Your task to perform on an android device: turn off wifi Image 0: 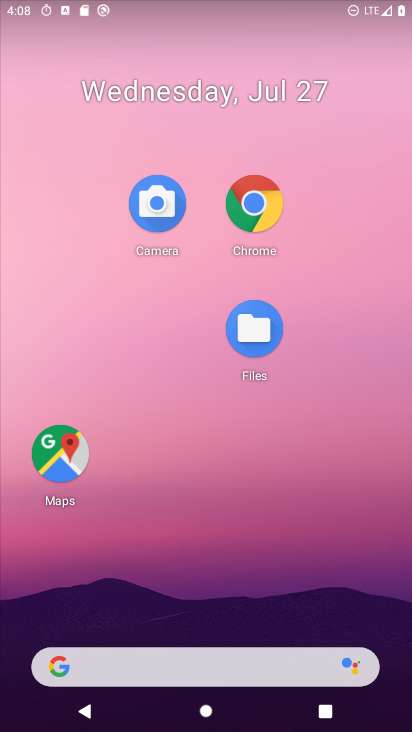
Step 0: drag from (220, 624) to (234, 68)
Your task to perform on an android device: turn off wifi Image 1: 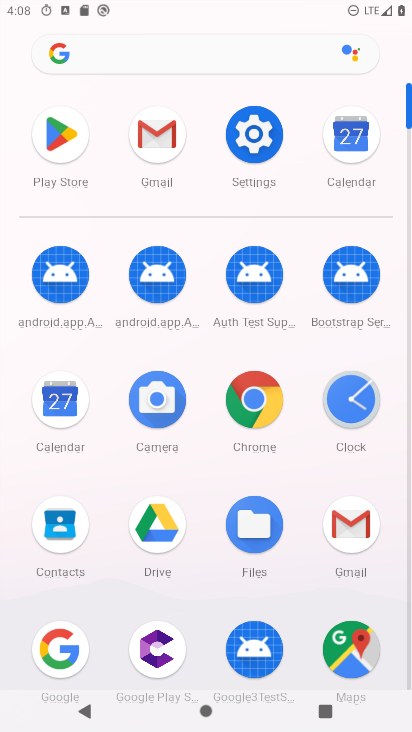
Step 1: click (245, 112)
Your task to perform on an android device: turn off wifi Image 2: 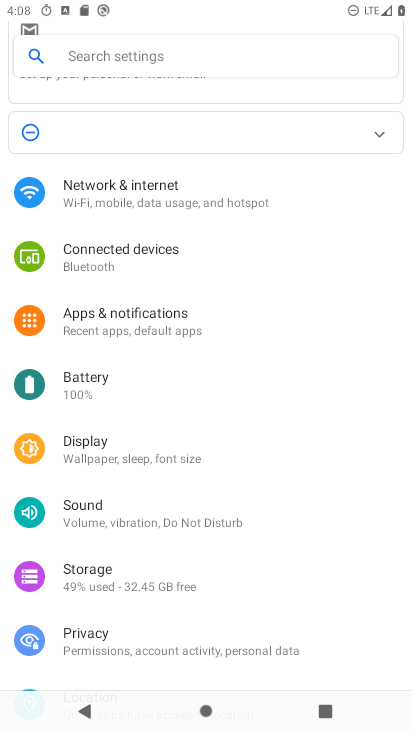
Step 2: click (135, 181)
Your task to perform on an android device: turn off wifi Image 3: 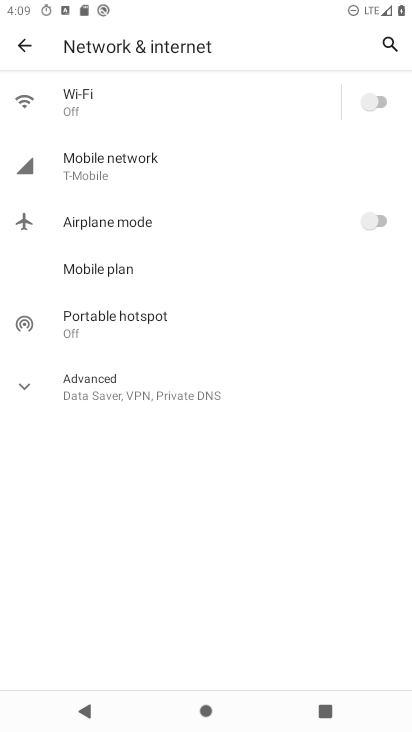
Step 3: click (173, 109)
Your task to perform on an android device: turn off wifi Image 4: 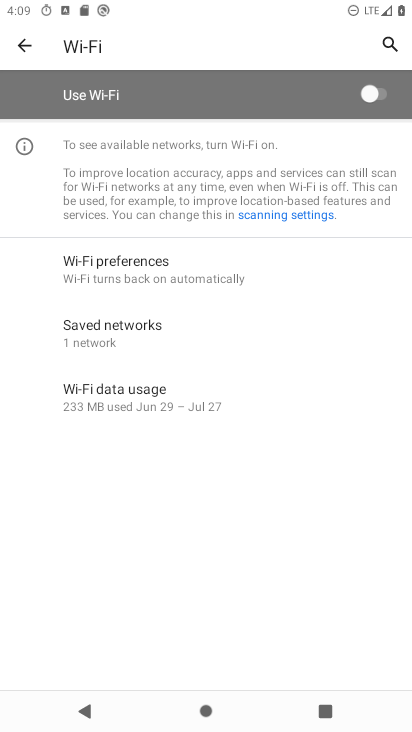
Step 4: task complete